Your task to perform on an android device: check android version Image 0: 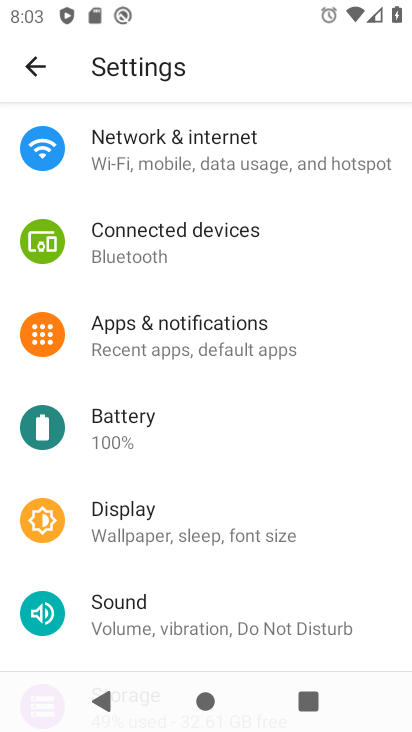
Step 0: drag from (254, 593) to (249, 168)
Your task to perform on an android device: check android version Image 1: 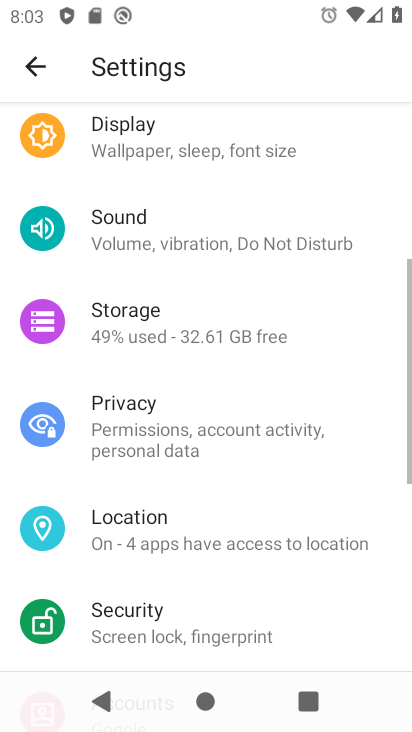
Step 1: click (253, 142)
Your task to perform on an android device: check android version Image 2: 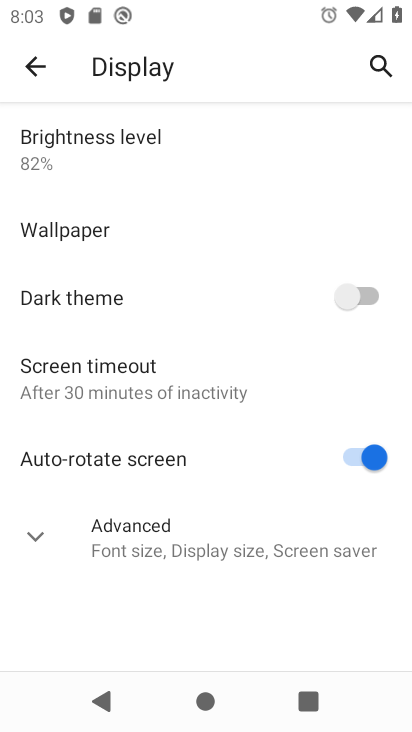
Step 2: drag from (220, 480) to (213, 151)
Your task to perform on an android device: check android version Image 3: 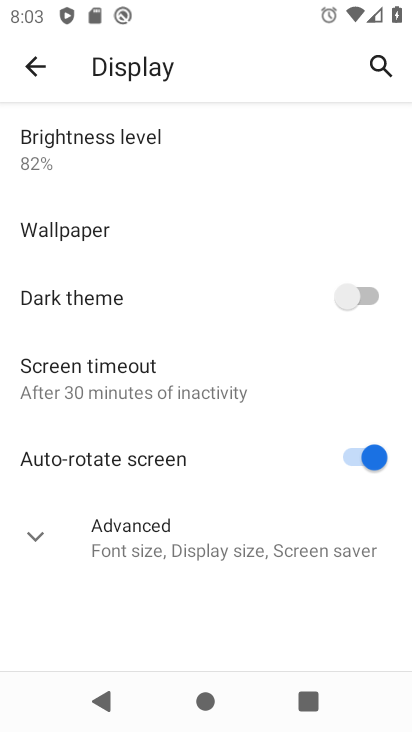
Step 3: click (41, 60)
Your task to perform on an android device: check android version Image 4: 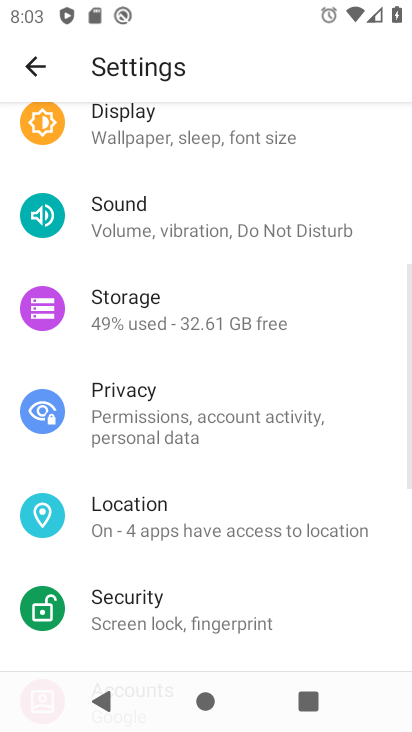
Step 4: drag from (225, 587) to (228, 218)
Your task to perform on an android device: check android version Image 5: 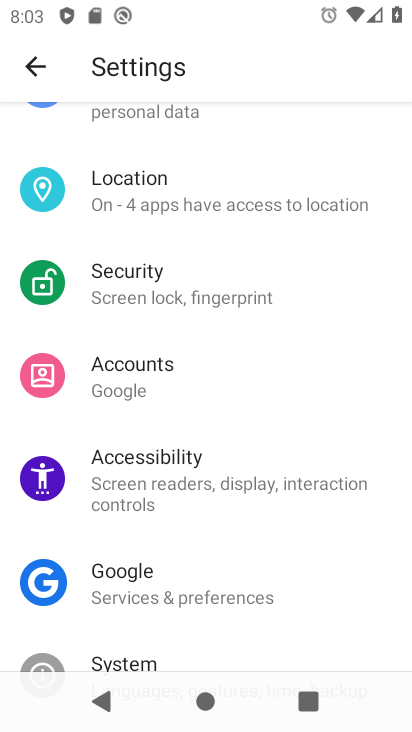
Step 5: drag from (220, 530) to (234, 103)
Your task to perform on an android device: check android version Image 6: 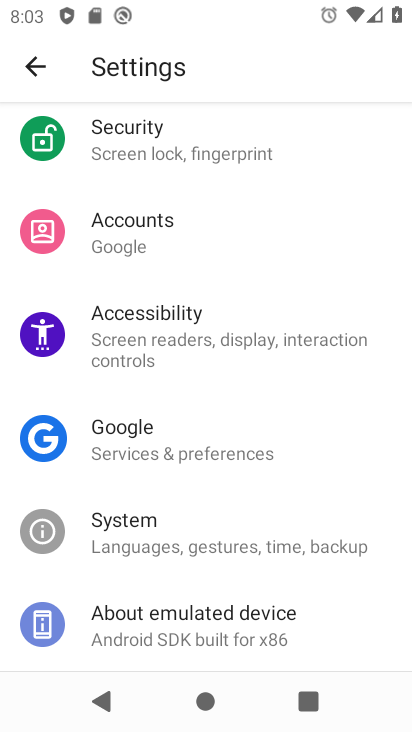
Step 6: click (196, 619)
Your task to perform on an android device: check android version Image 7: 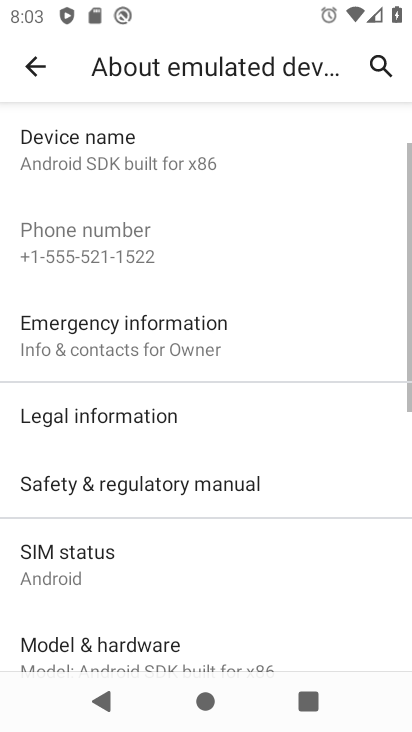
Step 7: drag from (261, 544) to (255, 187)
Your task to perform on an android device: check android version Image 8: 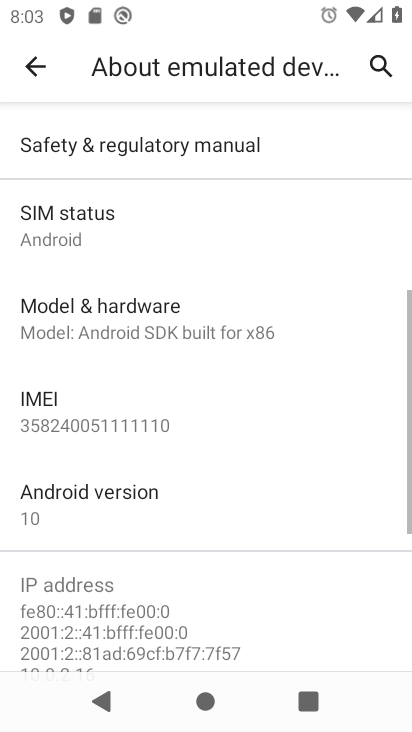
Step 8: click (113, 508)
Your task to perform on an android device: check android version Image 9: 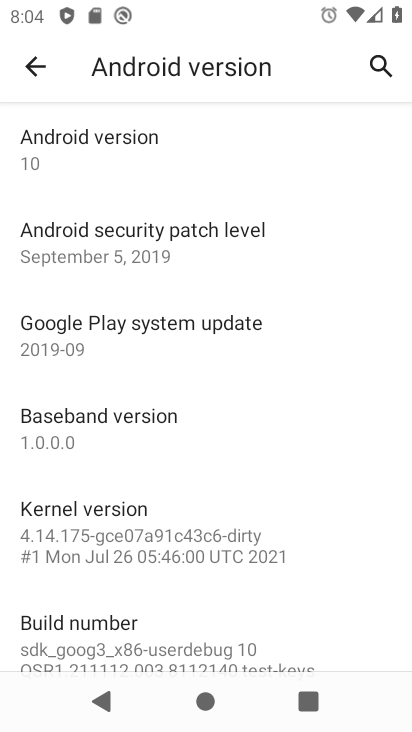
Step 9: task complete